Your task to perform on an android device: Open the calendar and show me this week's events Image 0: 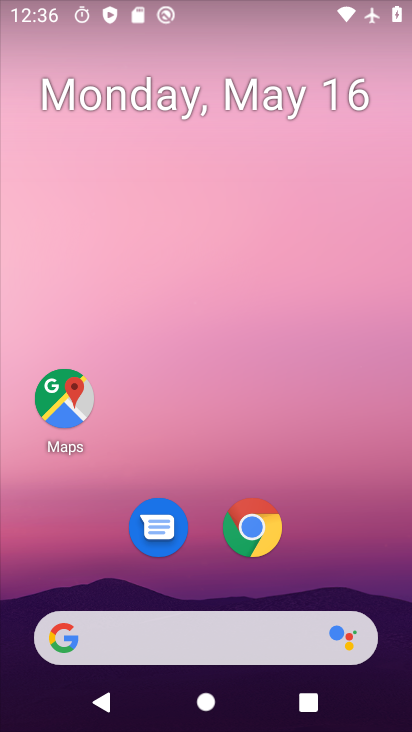
Step 0: press home button
Your task to perform on an android device: Open the calendar and show me this week's events Image 1: 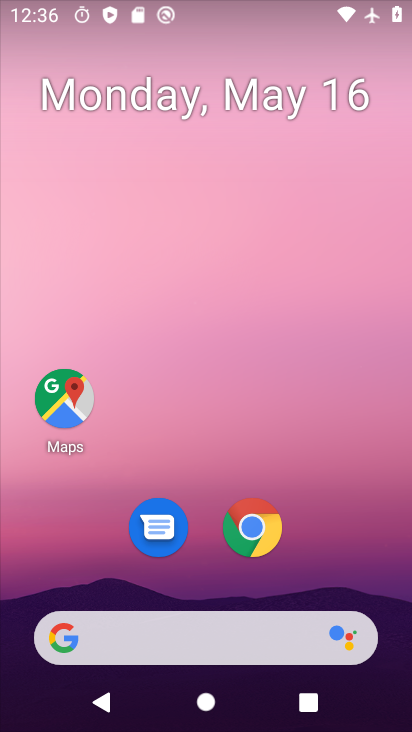
Step 1: drag from (153, 640) to (317, 199)
Your task to perform on an android device: Open the calendar and show me this week's events Image 2: 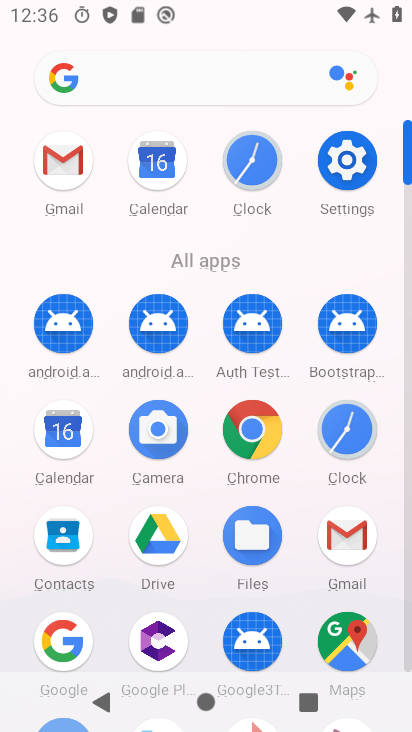
Step 2: click (71, 428)
Your task to perform on an android device: Open the calendar and show me this week's events Image 3: 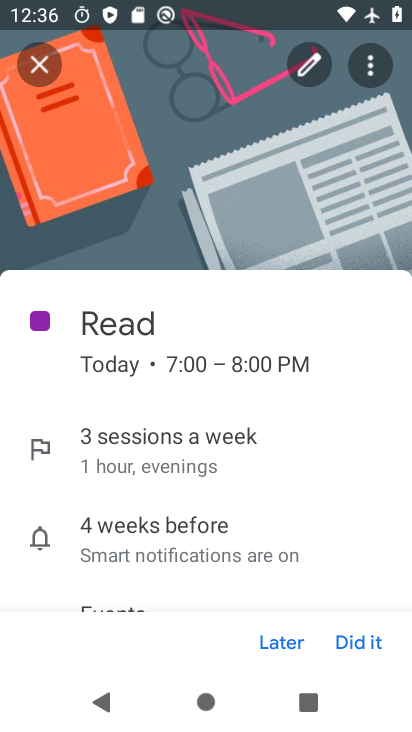
Step 3: click (39, 68)
Your task to perform on an android device: Open the calendar and show me this week's events Image 4: 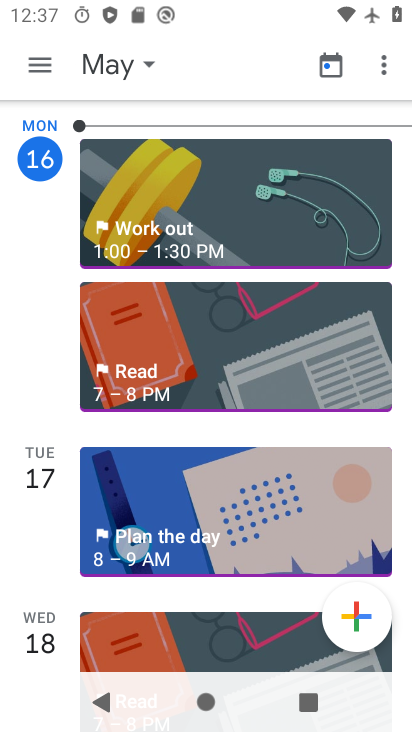
Step 4: click (110, 68)
Your task to perform on an android device: Open the calendar and show me this week's events Image 5: 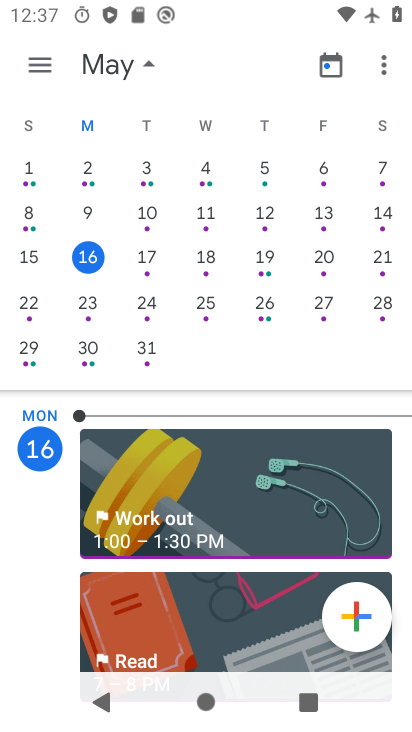
Step 5: click (37, 60)
Your task to perform on an android device: Open the calendar and show me this week's events Image 6: 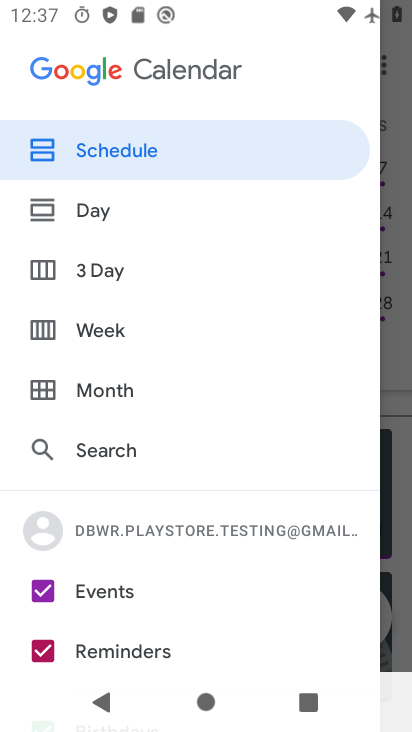
Step 6: click (97, 334)
Your task to perform on an android device: Open the calendar and show me this week's events Image 7: 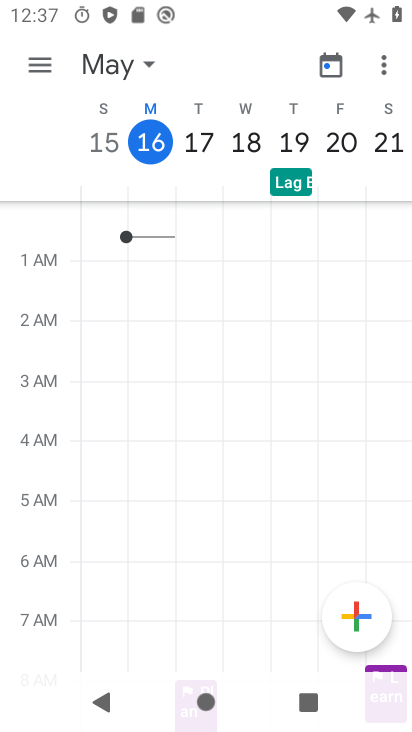
Step 7: click (46, 61)
Your task to perform on an android device: Open the calendar and show me this week's events Image 8: 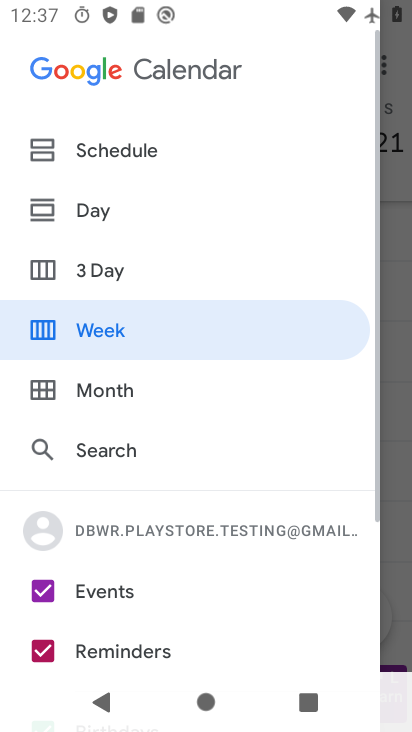
Step 8: click (128, 146)
Your task to perform on an android device: Open the calendar and show me this week's events Image 9: 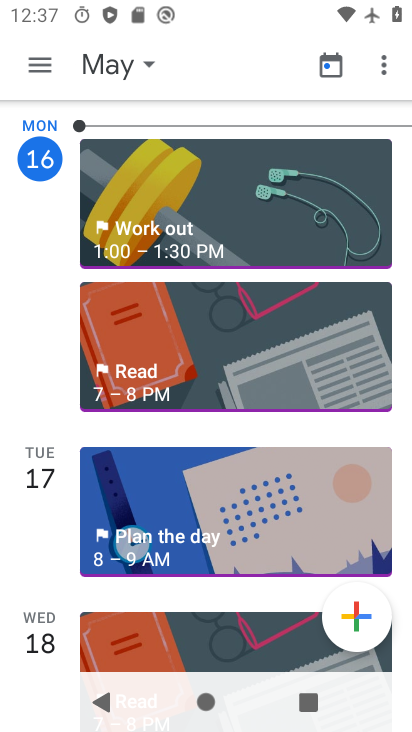
Step 9: drag from (204, 536) to (359, 129)
Your task to perform on an android device: Open the calendar and show me this week's events Image 10: 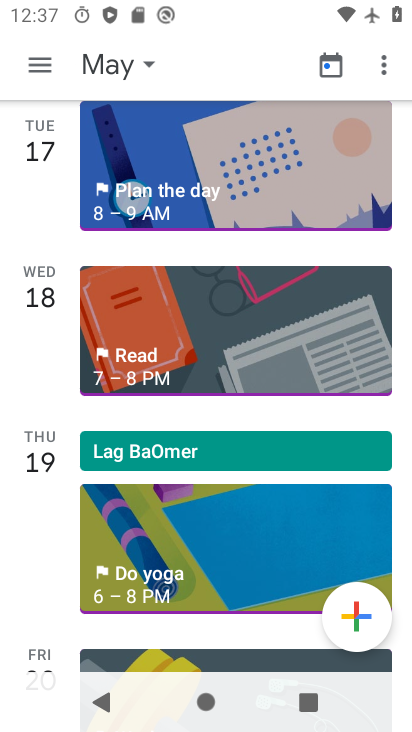
Step 10: drag from (189, 535) to (335, 110)
Your task to perform on an android device: Open the calendar and show me this week's events Image 11: 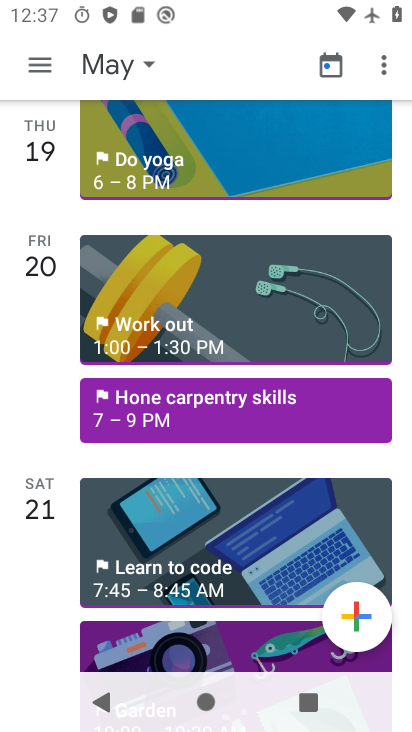
Step 11: click (189, 403)
Your task to perform on an android device: Open the calendar and show me this week's events Image 12: 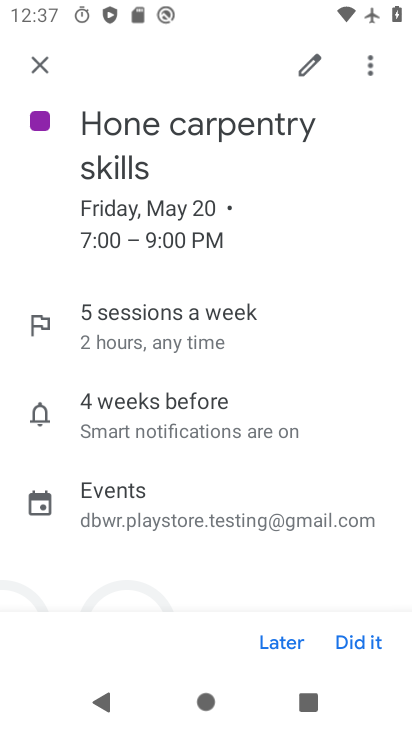
Step 12: task complete